Your task to perform on an android device: add a contact in the contacts app Image 0: 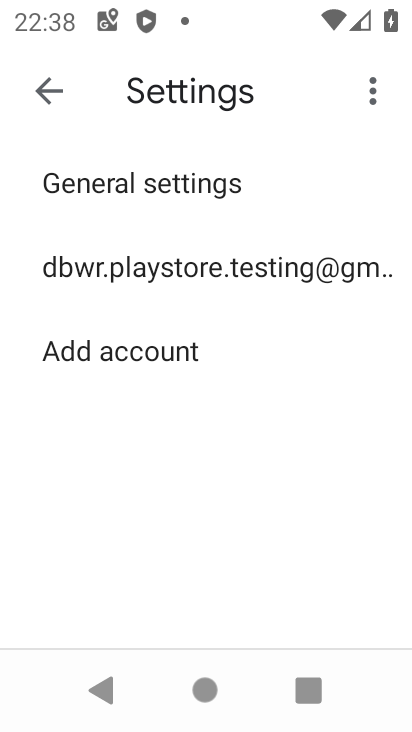
Step 0: press home button
Your task to perform on an android device: add a contact in the contacts app Image 1: 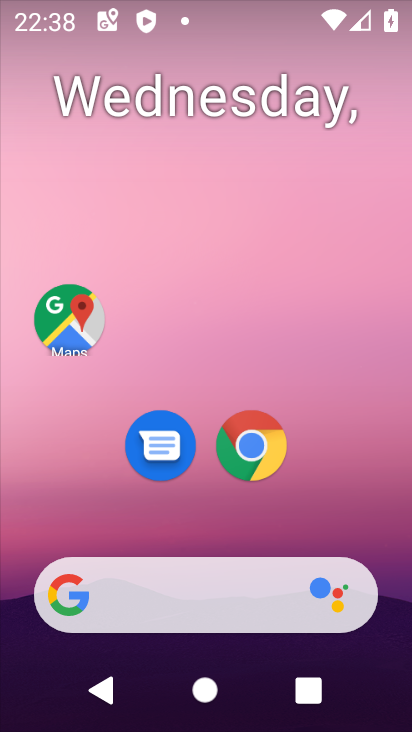
Step 1: drag from (163, 517) to (230, 229)
Your task to perform on an android device: add a contact in the contacts app Image 2: 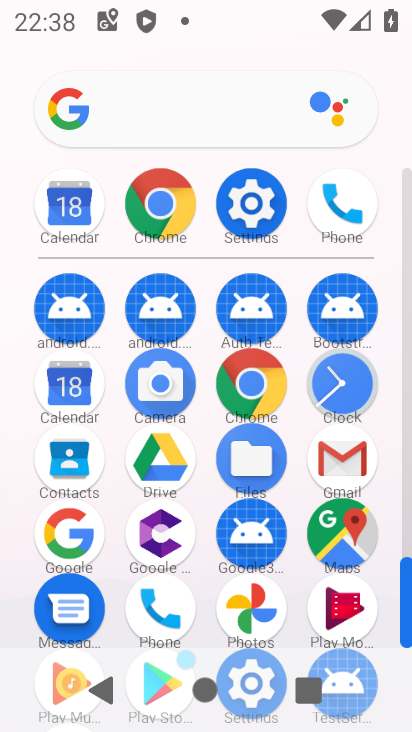
Step 2: click (328, 191)
Your task to perform on an android device: add a contact in the contacts app Image 3: 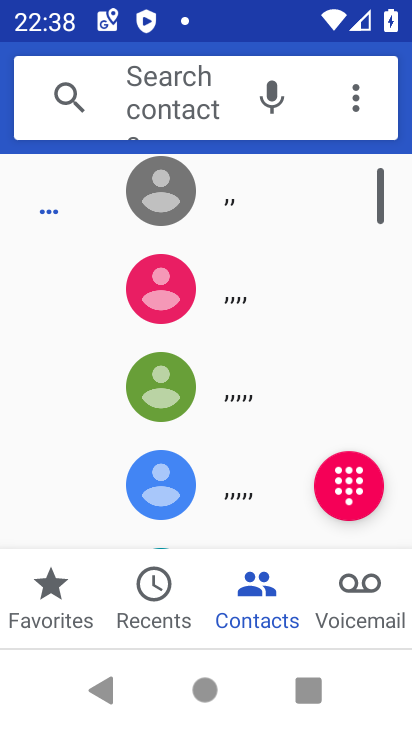
Step 3: drag from (226, 164) to (231, 493)
Your task to perform on an android device: add a contact in the contacts app Image 4: 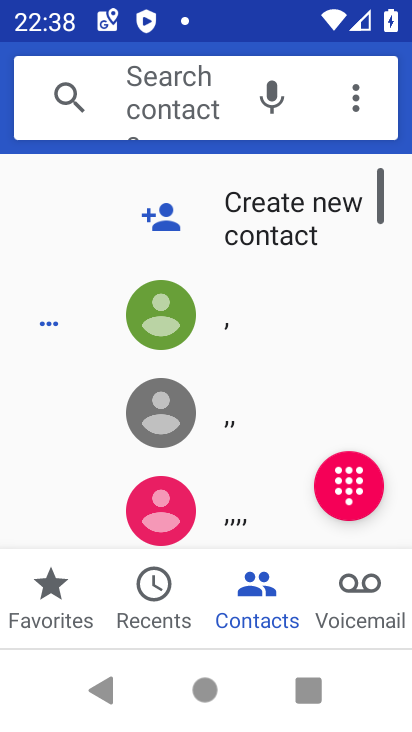
Step 4: click (235, 214)
Your task to perform on an android device: add a contact in the contacts app Image 5: 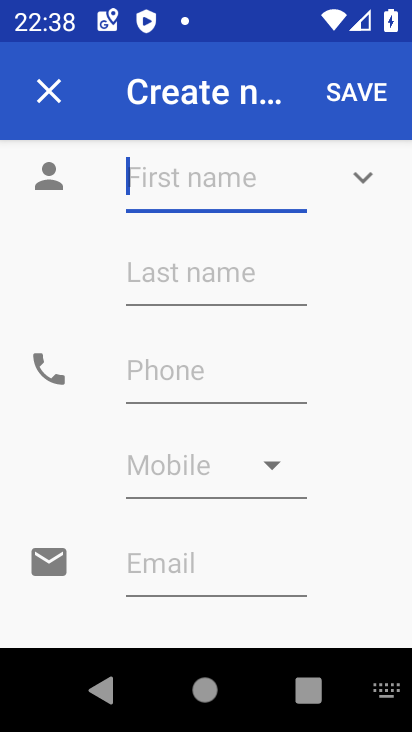
Step 5: click (138, 177)
Your task to perform on an android device: add a contact in the contacts app Image 6: 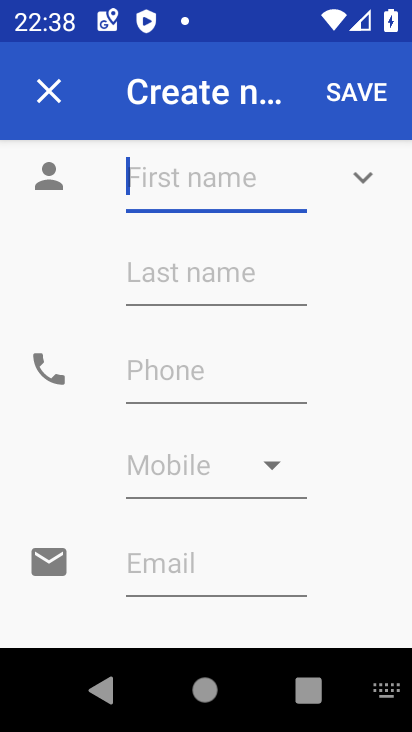
Step 6: type "kjhgfd"
Your task to perform on an android device: add a contact in the contacts app Image 7: 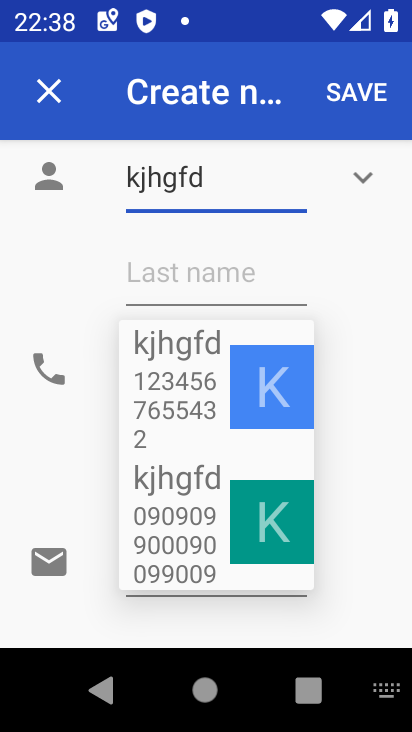
Step 7: click (188, 387)
Your task to perform on an android device: add a contact in the contacts app Image 8: 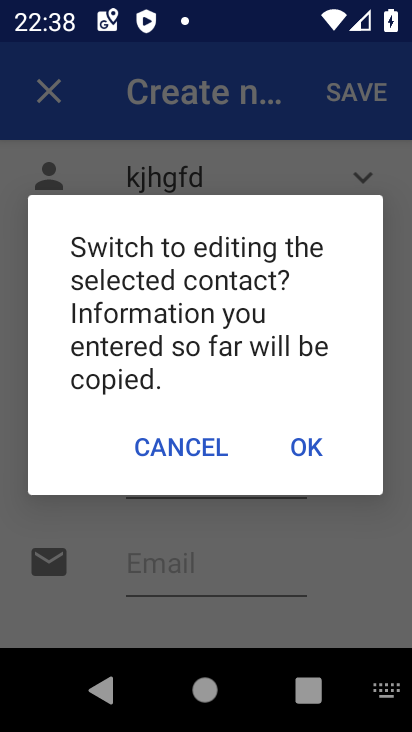
Step 8: click (318, 452)
Your task to perform on an android device: add a contact in the contacts app Image 9: 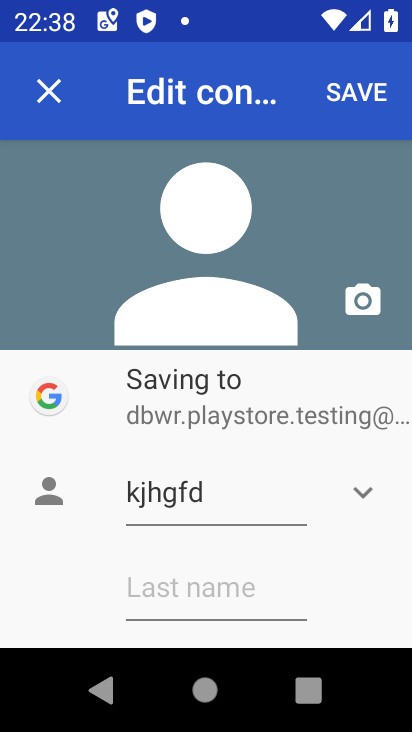
Step 9: click (67, 87)
Your task to perform on an android device: add a contact in the contacts app Image 10: 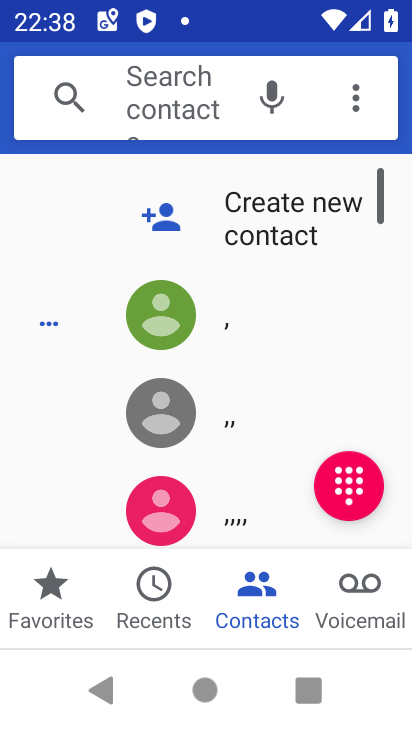
Step 10: click (231, 221)
Your task to perform on an android device: add a contact in the contacts app Image 11: 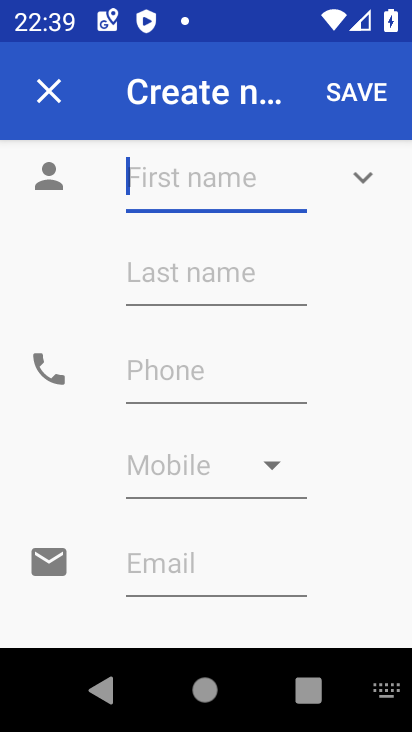
Step 11: type "poiuy"
Your task to perform on an android device: add a contact in the contacts app Image 12: 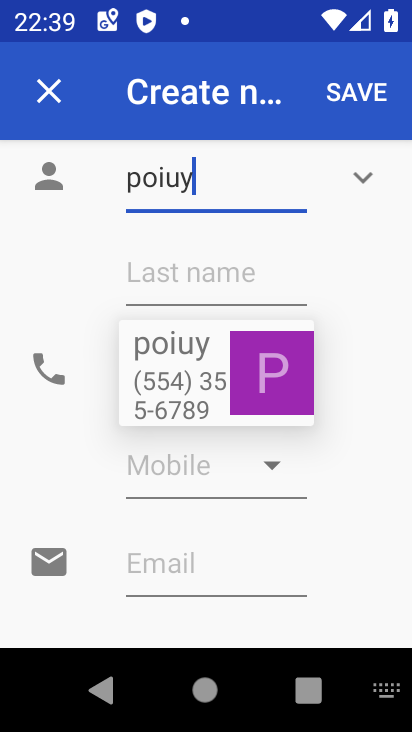
Step 12: click (194, 391)
Your task to perform on an android device: add a contact in the contacts app Image 13: 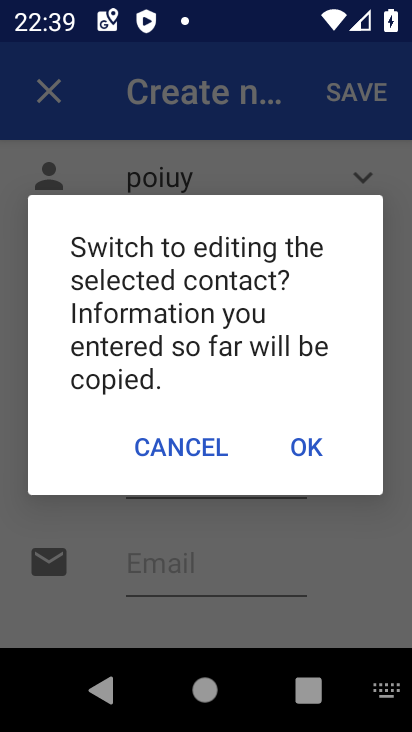
Step 13: click (318, 440)
Your task to perform on an android device: add a contact in the contacts app Image 14: 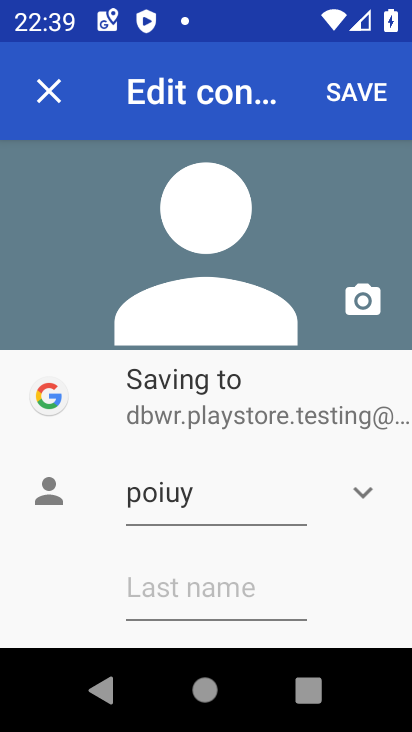
Step 14: click (355, 66)
Your task to perform on an android device: add a contact in the contacts app Image 15: 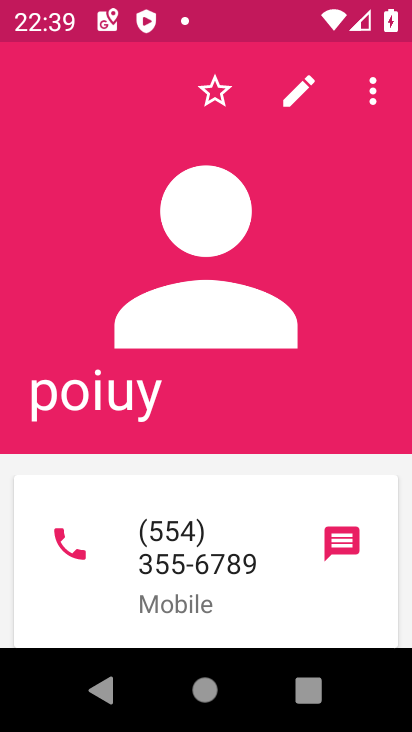
Step 15: task complete